Your task to perform on an android device: Open Amazon Image 0: 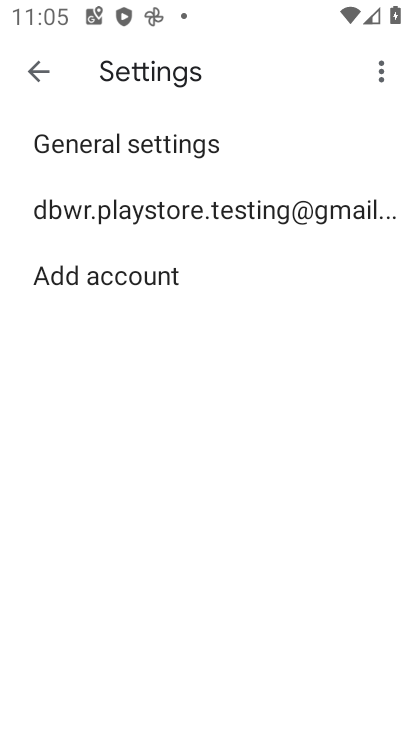
Step 0: press home button
Your task to perform on an android device: Open Amazon Image 1: 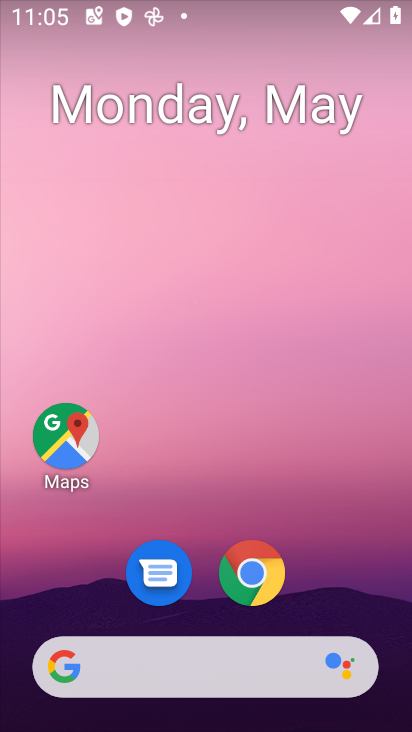
Step 1: click (262, 565)
Your task to perform on an android device: Open Amazon Image 2: 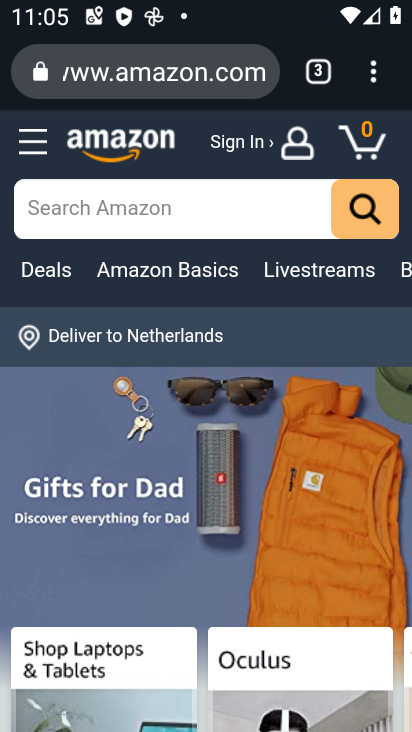
Step 2: task complete